Your task to perform on an android device: Open Maps and search for coffee Image 0: 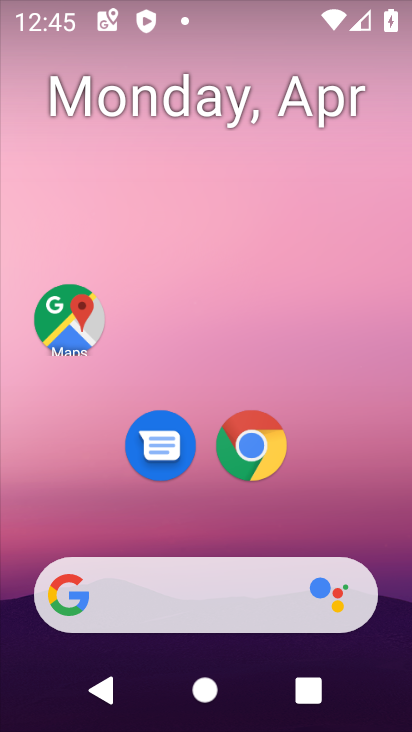
Step 0: drag from (347, 524) to (338, 138)
Your task to perform on an android device: Open Maps and search for coffee Image 1: 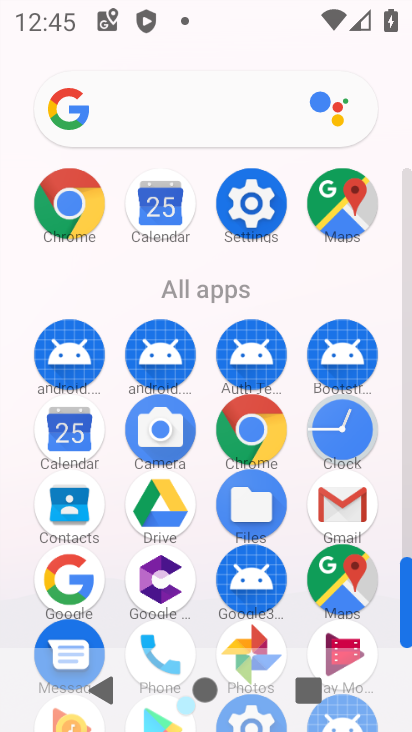
Step 1: click (344, 586)
Your task to perform on an android device: Open Maps and search for coffee Image 2: 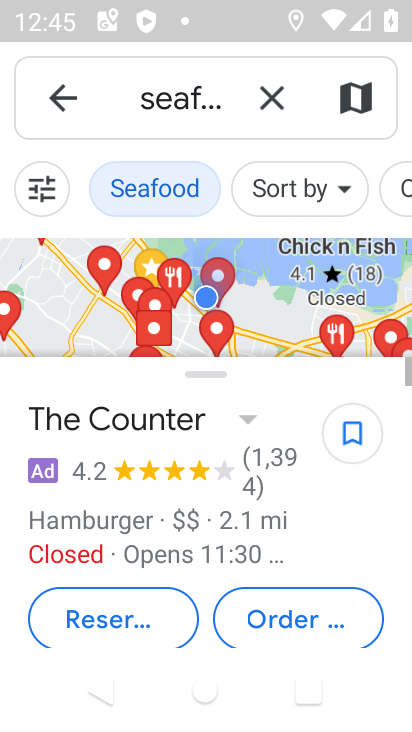
Step 2: click (218, 95)
Your task to perform on an android device: Open Maps and search for coffee Image 3: 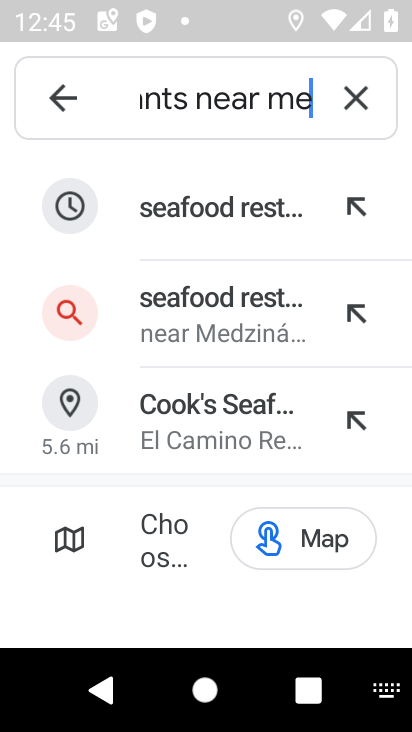
Step 3: click (355, 92)
Your task to perform on an android device: Open Maps and search for coffee Image 4: 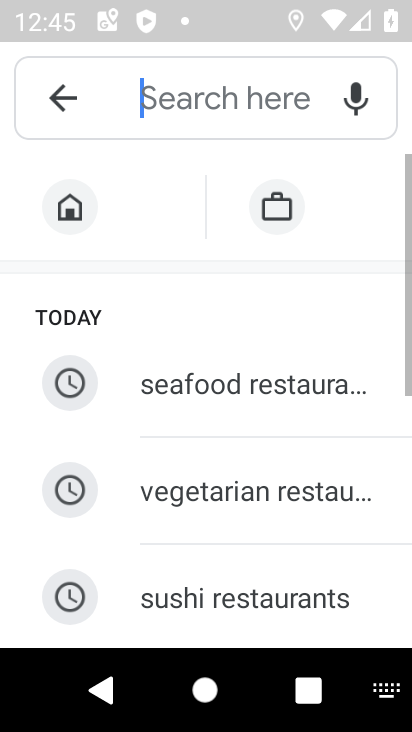
Step 4: click (235, 101)
Your task to perform on an android device: Open Maps and search for coffee Image 5: 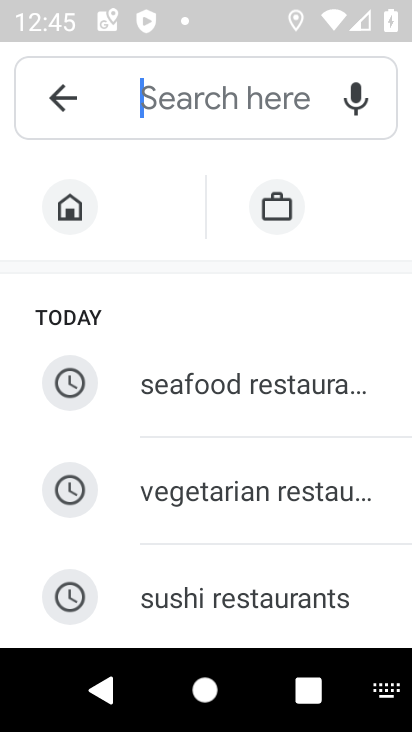
Step 5: type "coffee"
Your task to perform on an android device: Open Maps and search for coffee Image 6: 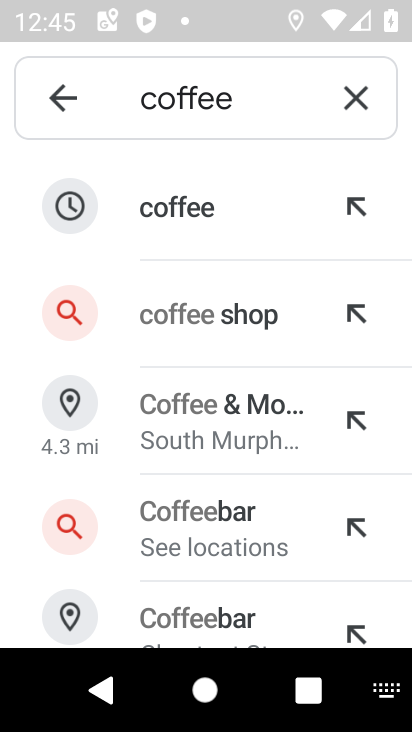
Step 6: click (281, 226)
Your task to perform on an android device: Open Maps and search for coffee Image 7: 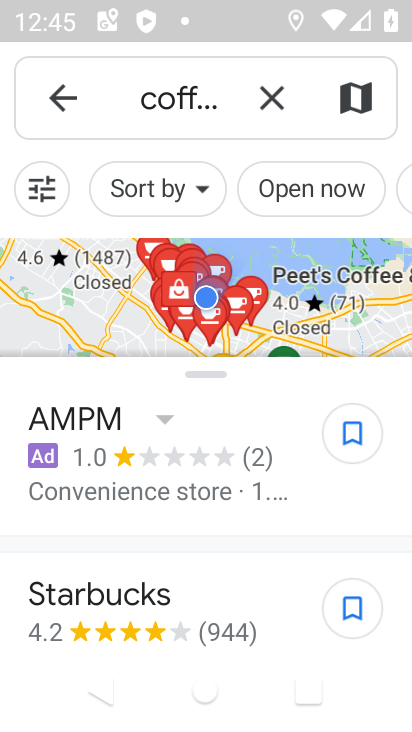
Step 7: task complete